Your task to perform on an android device: Open Google Chrome and open the bookmarks view Image 0: 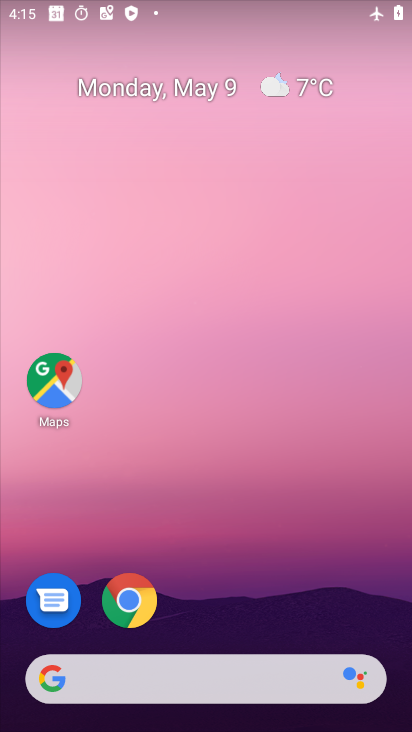
Step 0: click (134, 602)
Your task to perform on an android device: Open Google Chrome and open the bookmarks view Image 1: 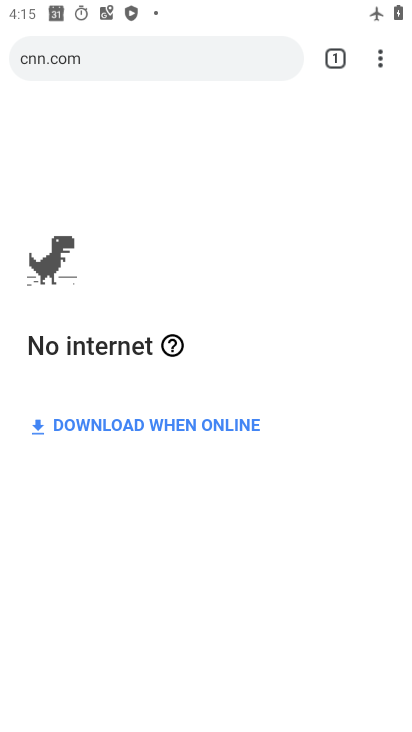
Step 1: task complete